Your task to perform on an android device: open app "TextNow: Call + Text Unlimited" Image 0: 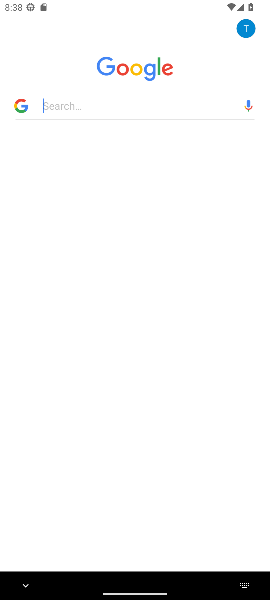
Step 0: press home button
Your task to perform on an android device: open app "TextNow: Call + Text Unlimited" Image 1: 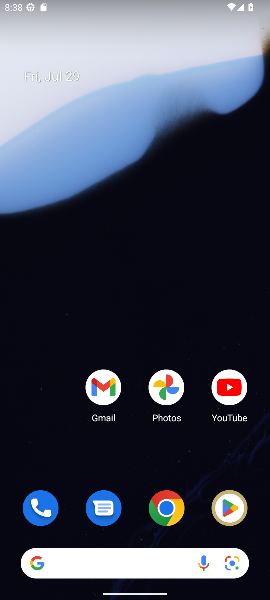
Step 1: click (227, 511)
Your task to perform on an android device: open app "TextNow: Call + Text Unlimited" Image 2: 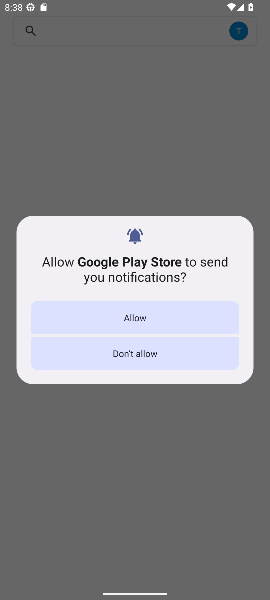
Step 2: click (206, 319)
Your task to perform on an android device: open app "TextNow: Call + Text Unlimited" Image 3: 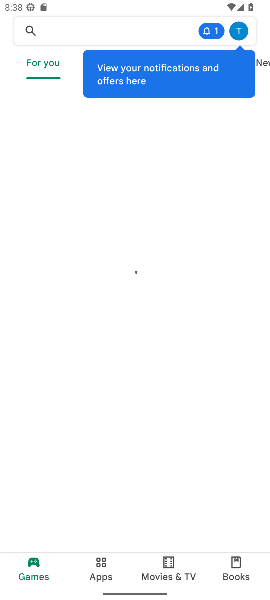
Step 3: click (145, 34)
Your task to perform on an android device: open app "TextNow: Call + Text Unlimited" Image 4: 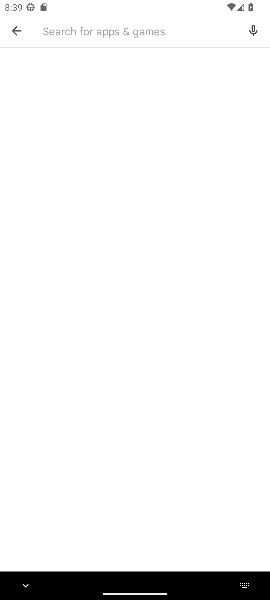
Step 4: type "TextNow: Call + Text Unlimited"
Your task to perform on an android device: open app "TextNow: Call + Text Unlimited" Image 5: 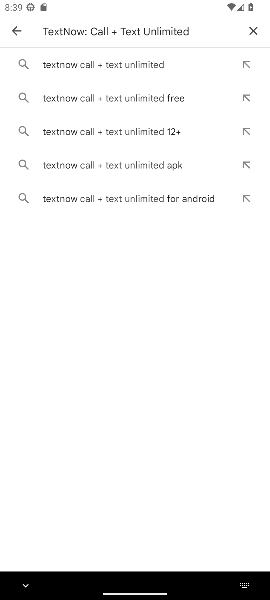
Step 5: click (153, 56)
Your task to perform on an android device: open app "TextNow: Call + Text Unlimited" Image 6: 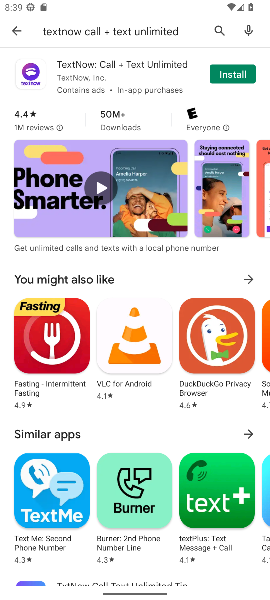
Step 6: click (162, 64)
Your task to perform on an android device: open app "TextNow: Call + Text Unlimited" Image 7: 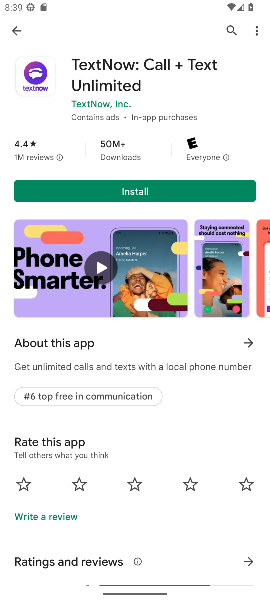
Step 7: task complete